Your task to perform on an android device: Do I have any events today? Image 0: 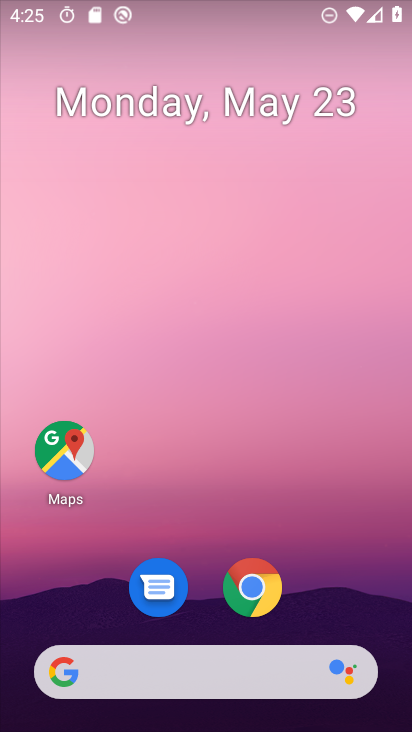
Step 0: drag from (216, 626) to (238, 8)
Your task to perform on an android device: Do I have any events today? Image 1: 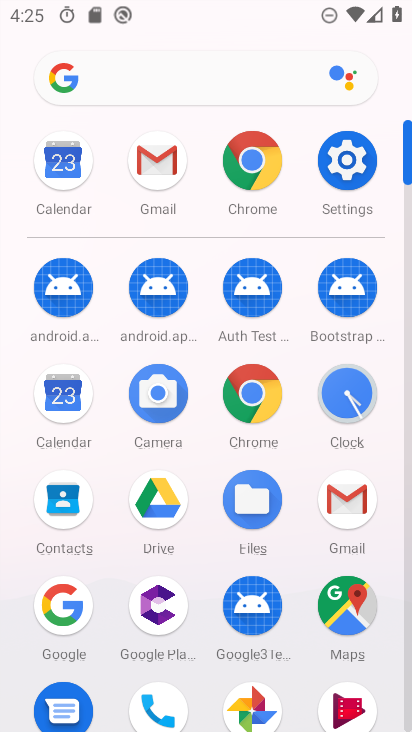
Step 1: click (76, 387)
Your task to perform on an android device: Do I have any events today? Image 2: 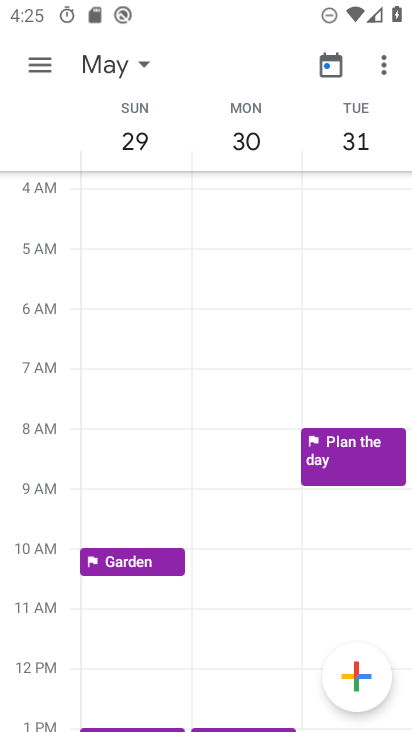
Step 2: click (46, 74)
Your task to perform on an android device: Do I have any events today? Image 3: 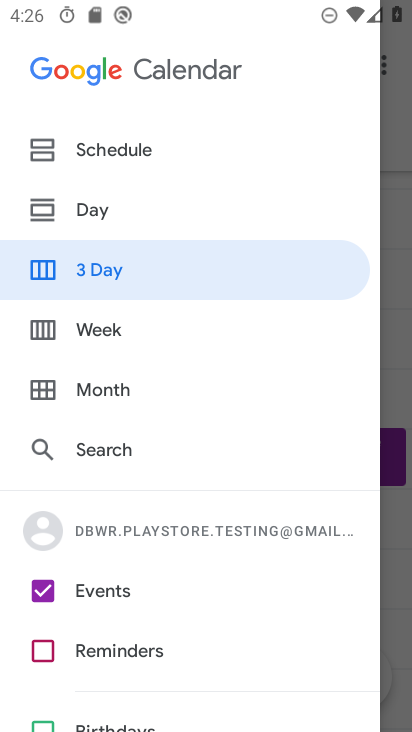
Step 3: click (100, 215)
Your task to perform on an android device: Do I have any events today? Image 4: 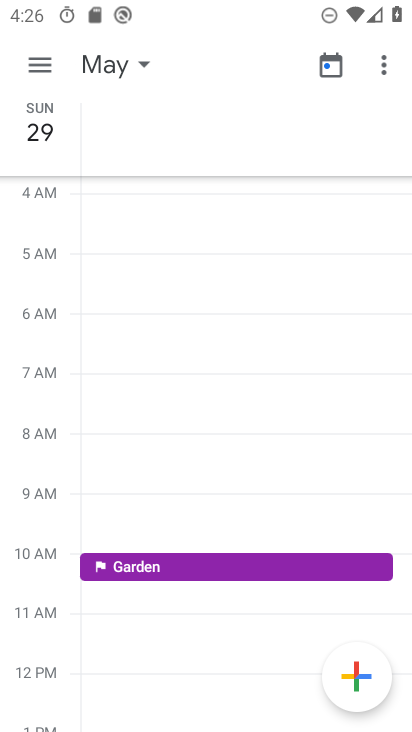
Step 4: task complete